Your task to perform on an android device: Open the calendar app, open the side menu, and click the "Day" option Image 0: 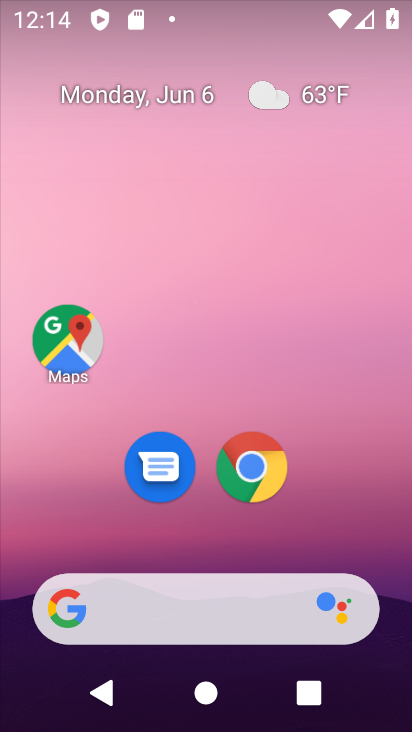
Step 0: drag from (400, 644) to (325, 89)
Your task to perform on an android device: Open the calendar app, open the side menu, and click the "Day" option Image 1: 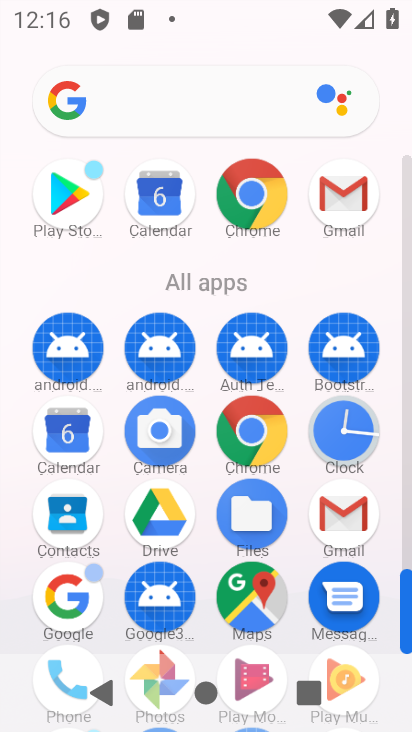
Step 1: click (75, 423)
Your task to perform on an android device: Open the calendar app, open the side menu, and click the "Day" option Image 2: 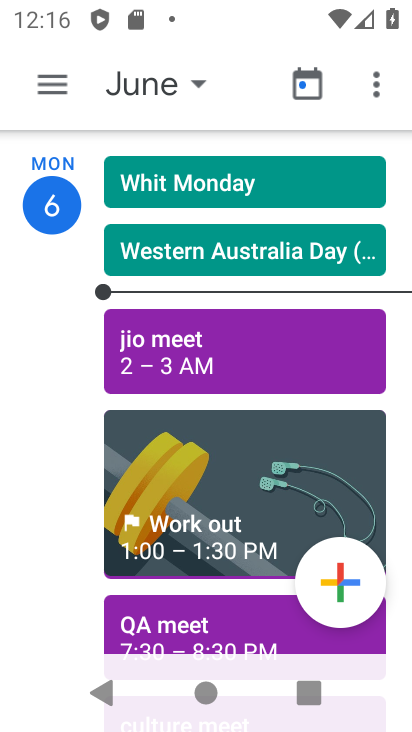
Step 2: click (61, 78)
Your task to perform on an android device: Open the calendar app, open the side menu, and click the "Day" option Image 3: 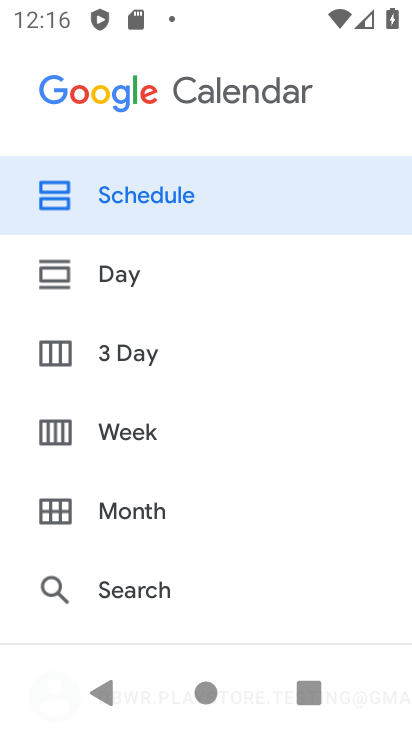
Step 3: click (153, 276)
Your task to perform on an android device: Open the calendar app, open the side menu, and click the "Day" option Image 4: 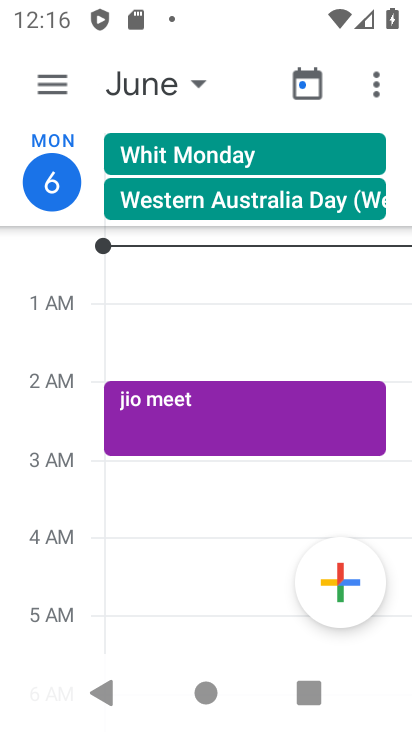
Step 4: click (50, 80)
Your task to perform on an android device: Open the calendar app, open the side menu, and click the "Day" option Image 5: 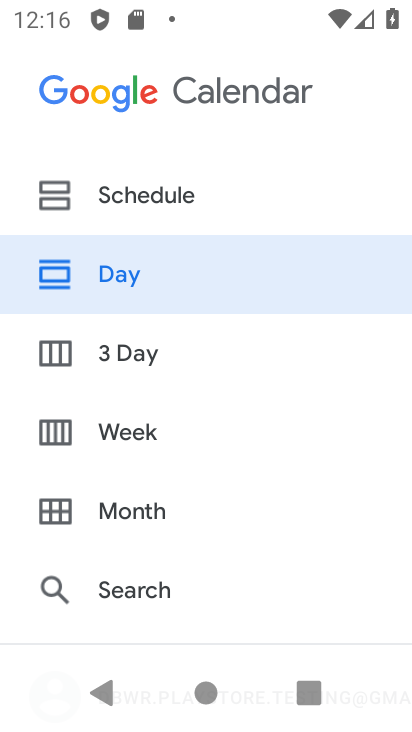
Step 5: click (238, 256)
Your task to perform on an android device: Open the calendar app, open the side menu, and click the "Day" option Image 6: 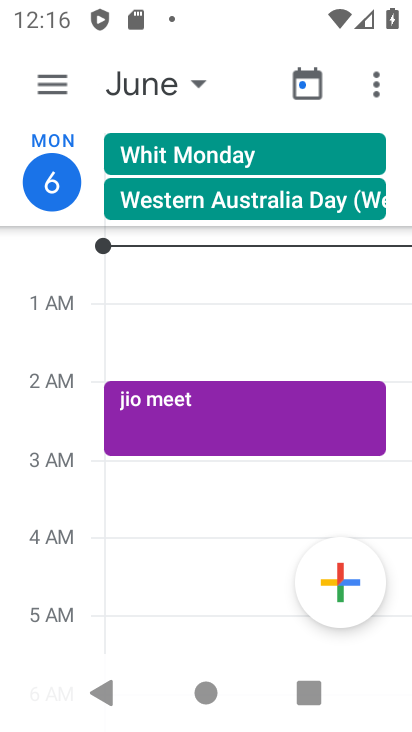
Step 6: task complete